Your task to perform on an android device: toggle location history Image 0: 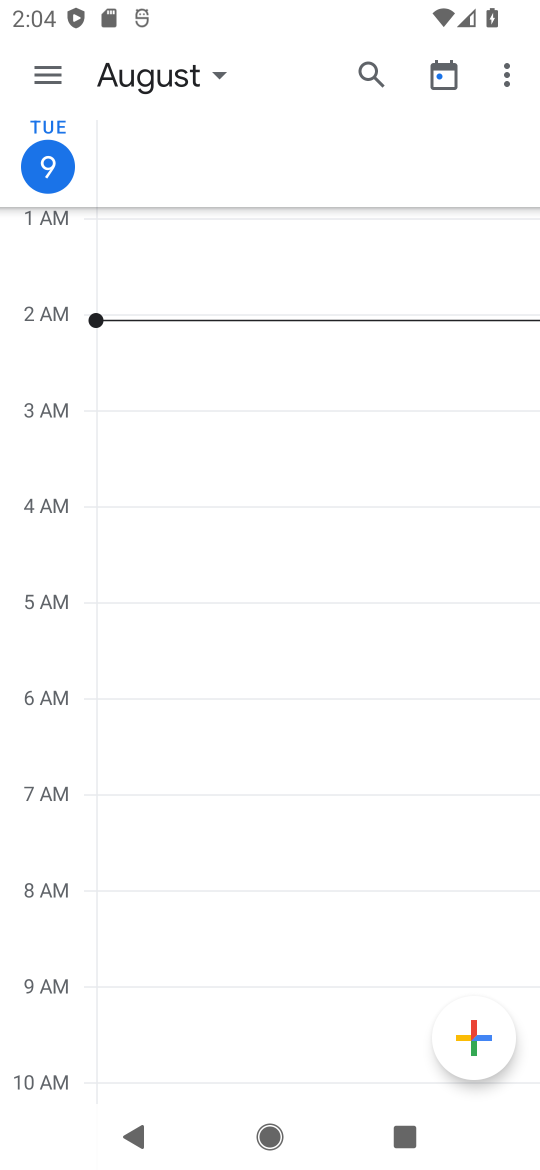
Step 0: press home button
Your task to perform on an android device: toggle location history Image 1: 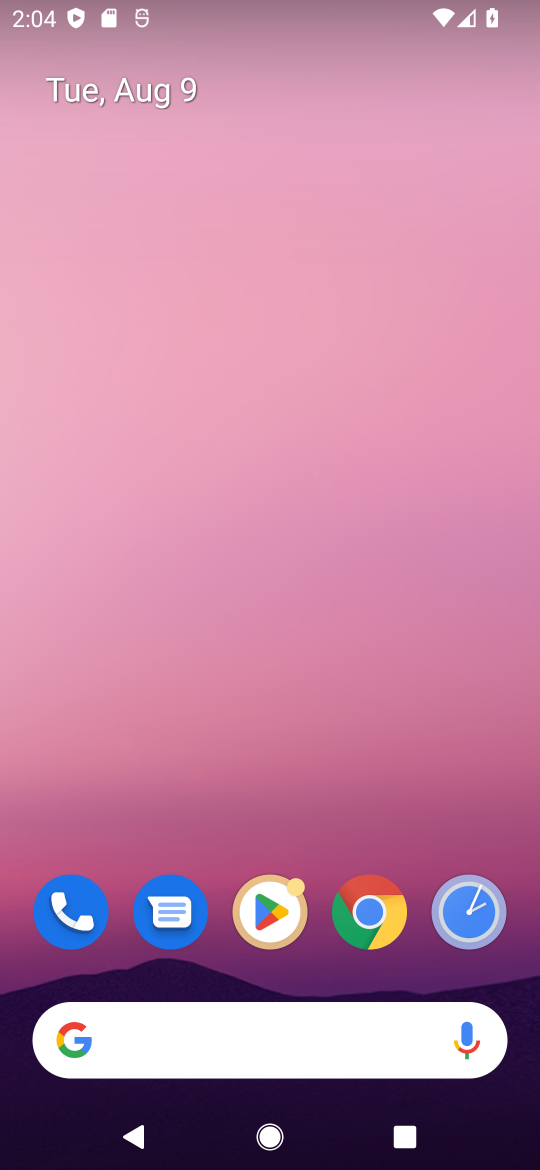
Step 1: drag from (294, 772) to (211, 100)
Your task to perform on an android device: toggle location history Image 2: 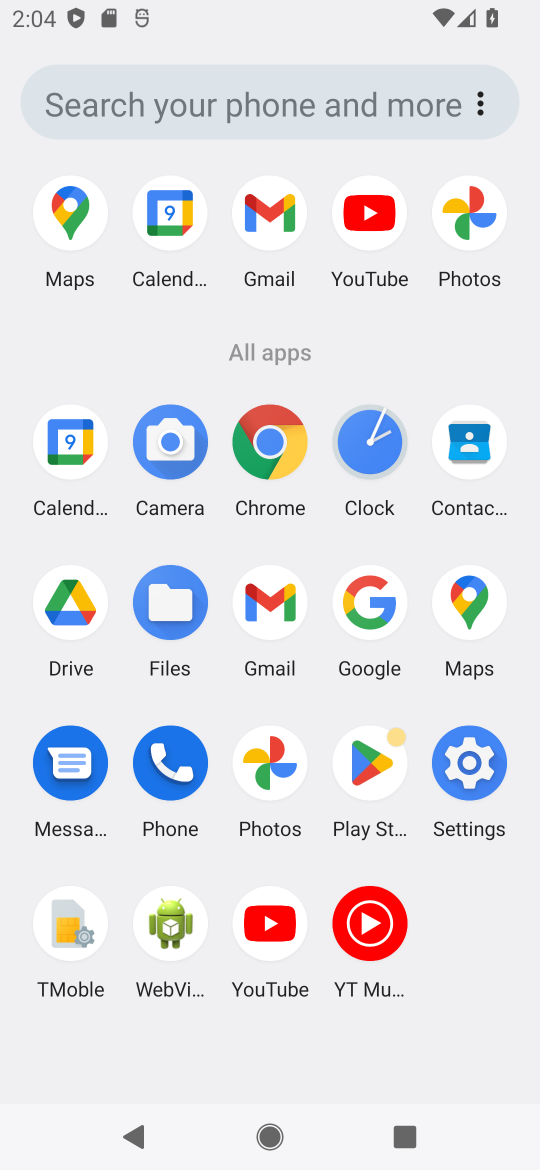
Step 2: click (470, 757)
Your task to perform on an android device: toggle location history Image 3: 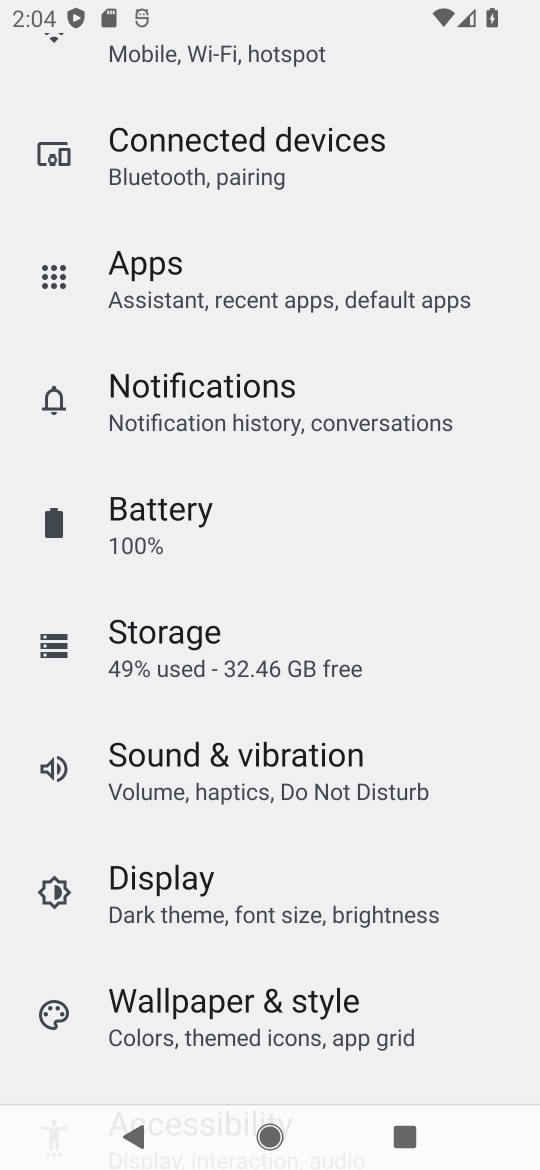
Step 3: drag from (312, 848) to (265, 78)
Your task to perform on an android device: toggle location history Image 4: 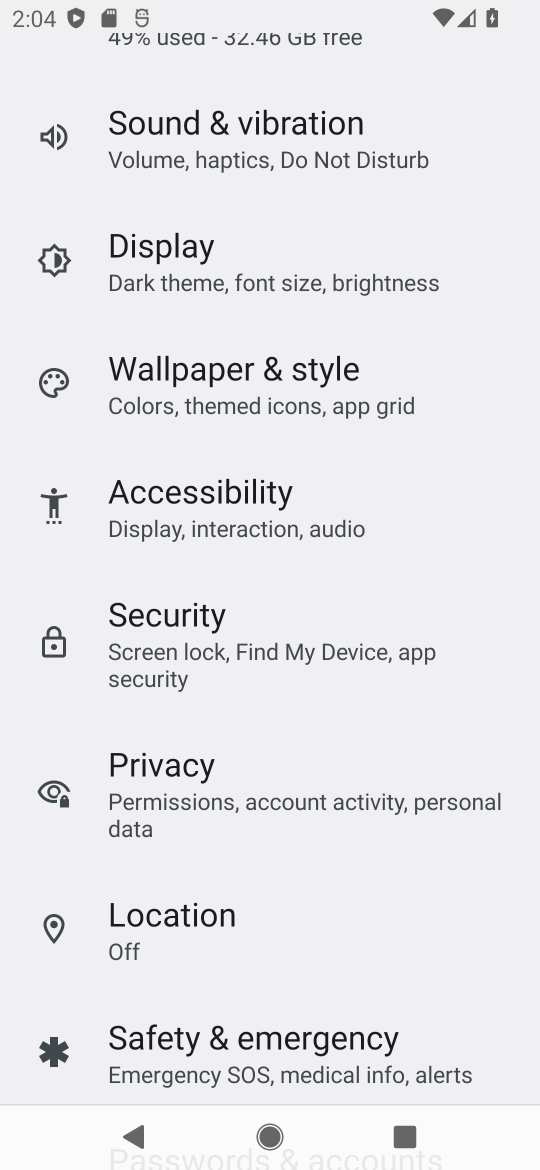
Step 4: click (182, 913)
Your task to perform on an android device: toggle location history Image 5: 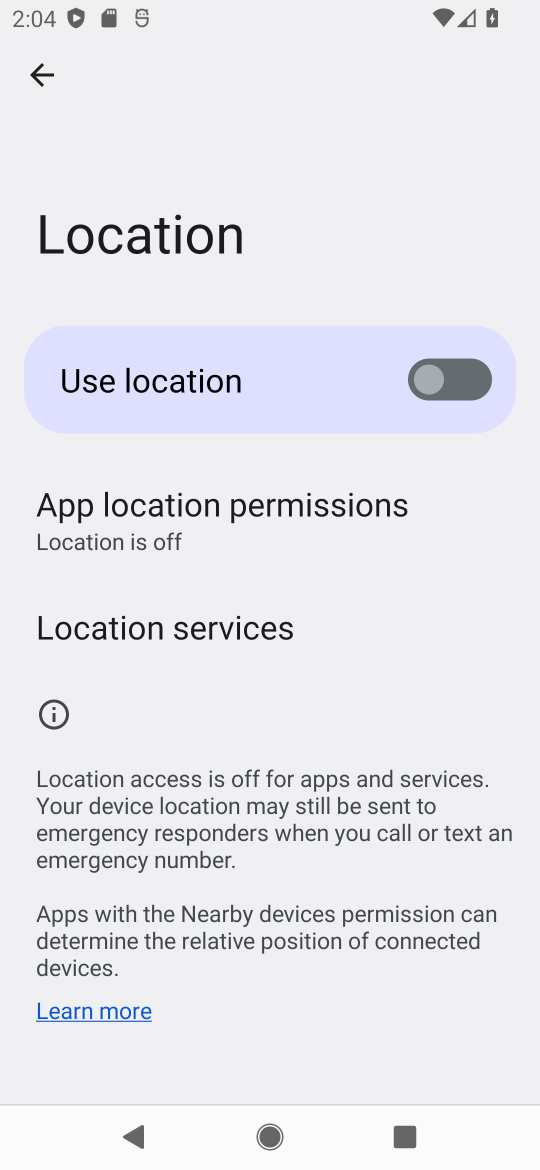
Step 5: click (131, 632)
Your task to perform on an android device: toggle location history Image 6: 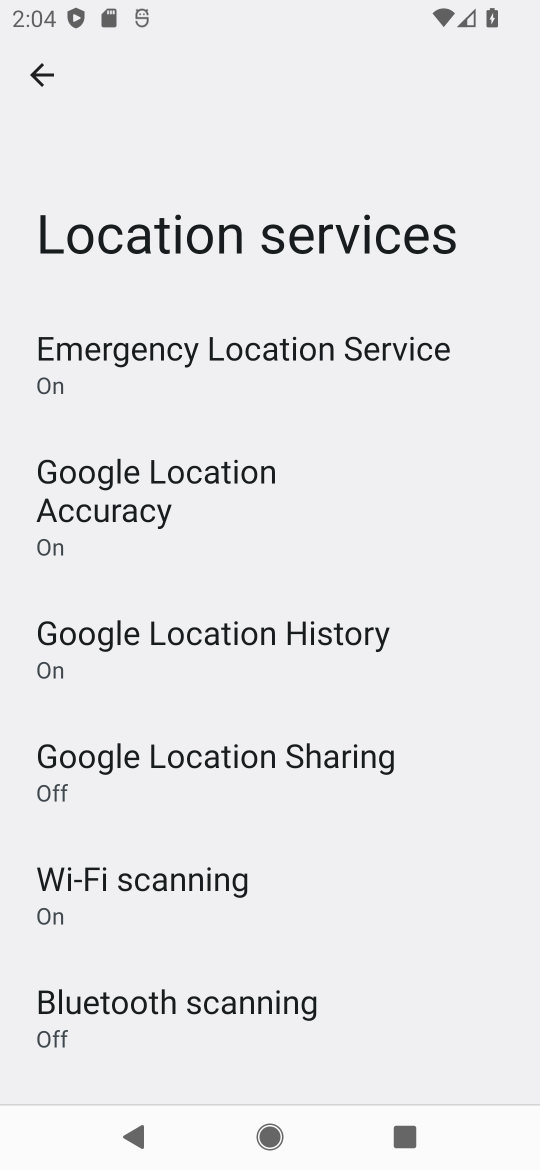
Step 6: click (195, 626)
Your task to perform on an android device: toggle location history Image 7: 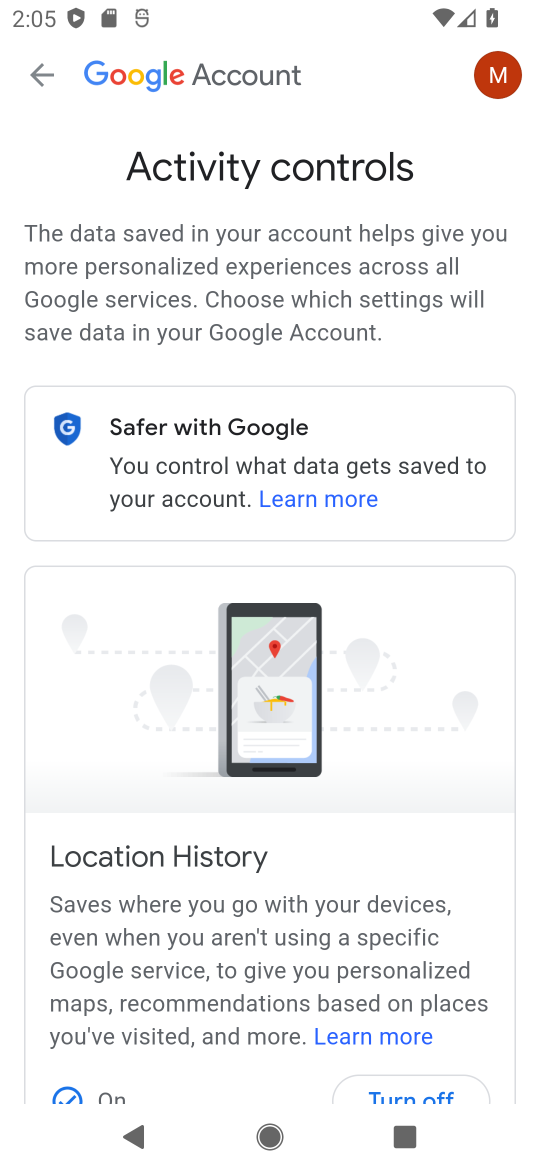
Step 7: drag from (398, 872) to (336, 473)
Your task to perform on an android device: toggle location history Image 8: 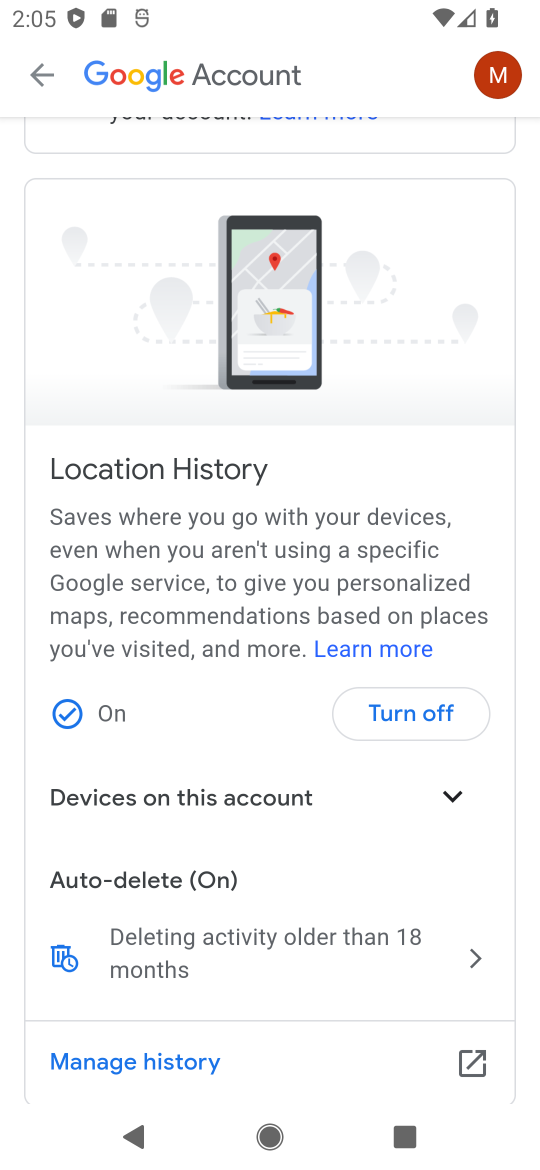
Step 8: click (425, 719)
Your task to perform on an android device: toggle location history Image 9: 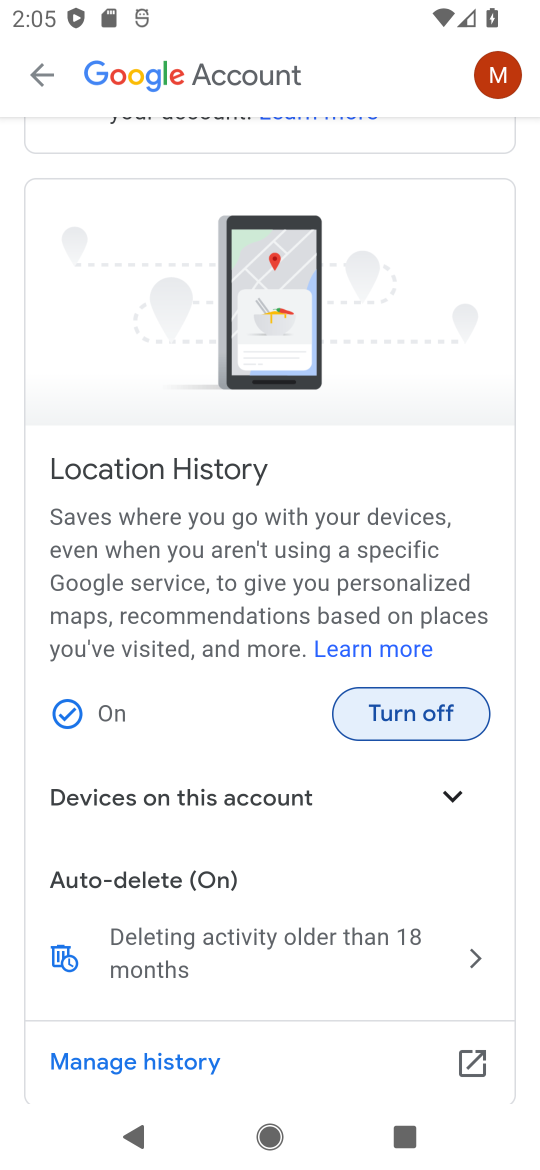
Step 9: click (398, 710)
Your task to perform on an android device: toggle location history Image 10: 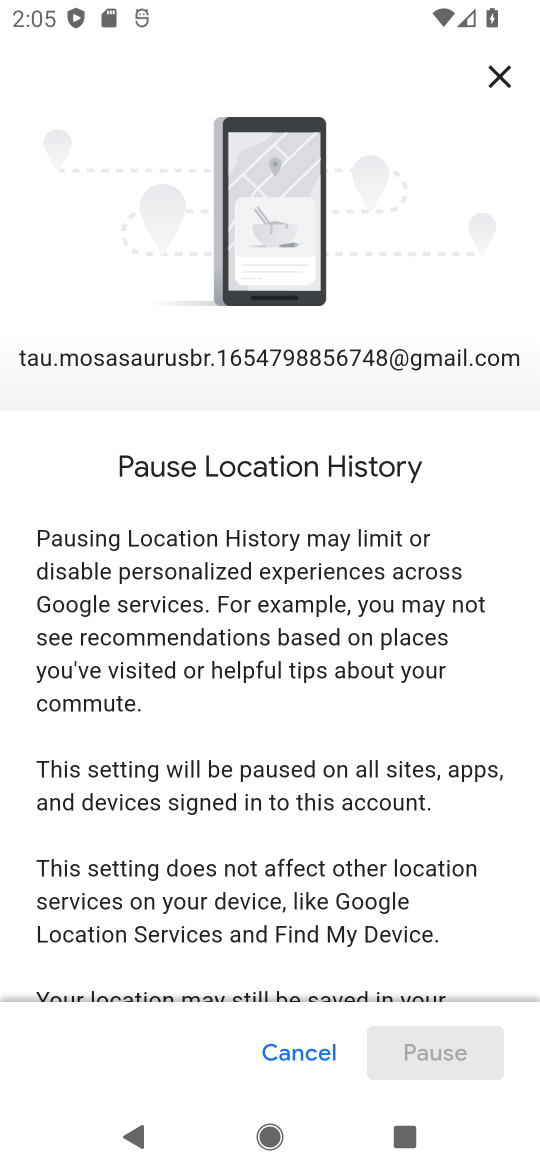
Step 10: drag from (299, 865) to (273, 371)
Your task to perform on an android device: toggle location history Image 11: 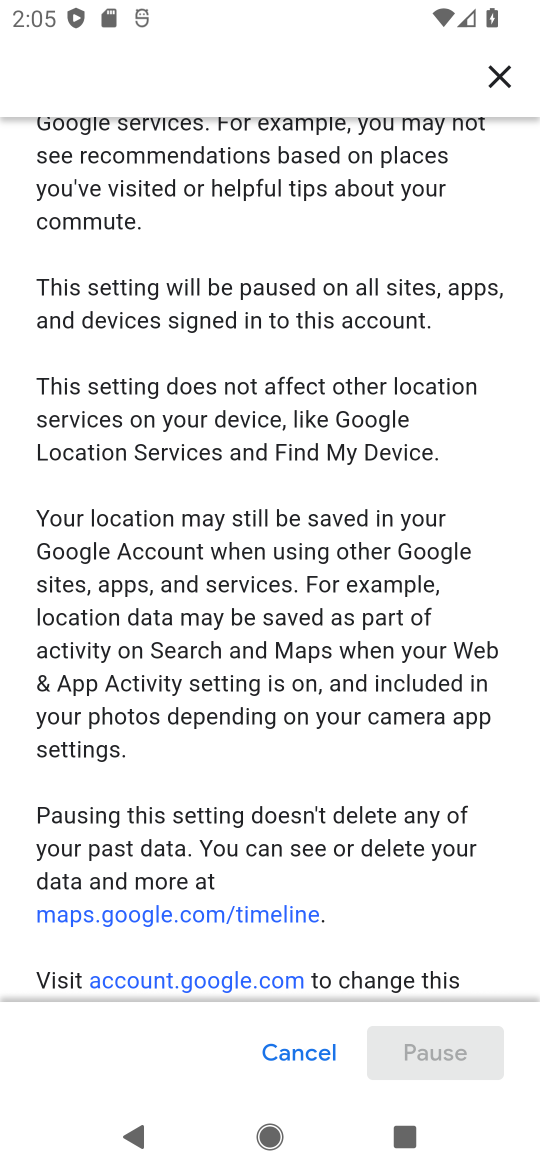
Step 11: drag from (360, 922) to (322, 395)
Your task to perform on an android device: toggle location history Image 12: 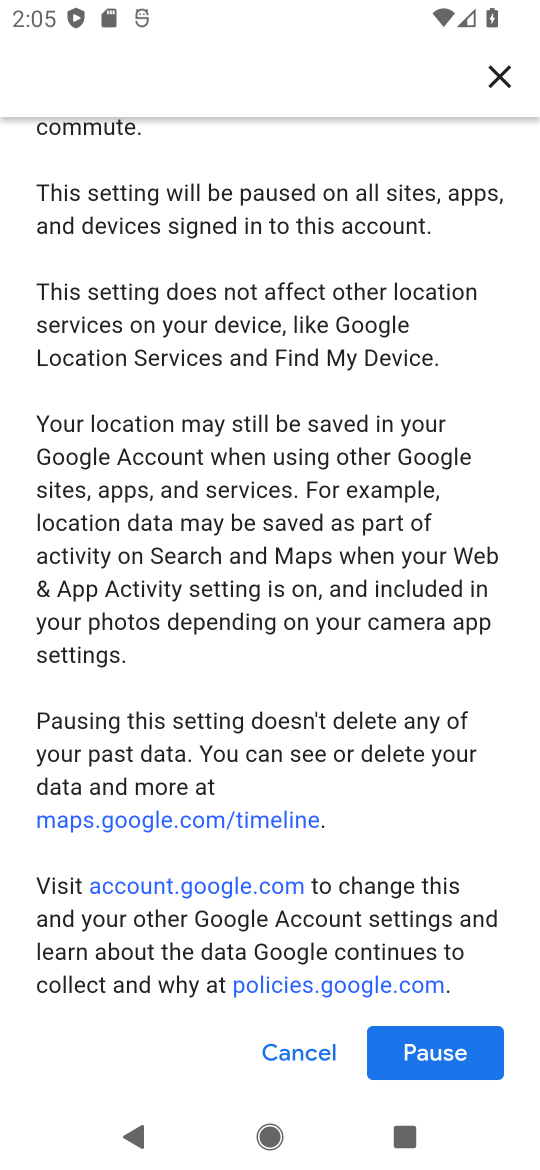
Step 12: click (432, 1046)
Your task to perform on an android device: toggle location history Image 13: 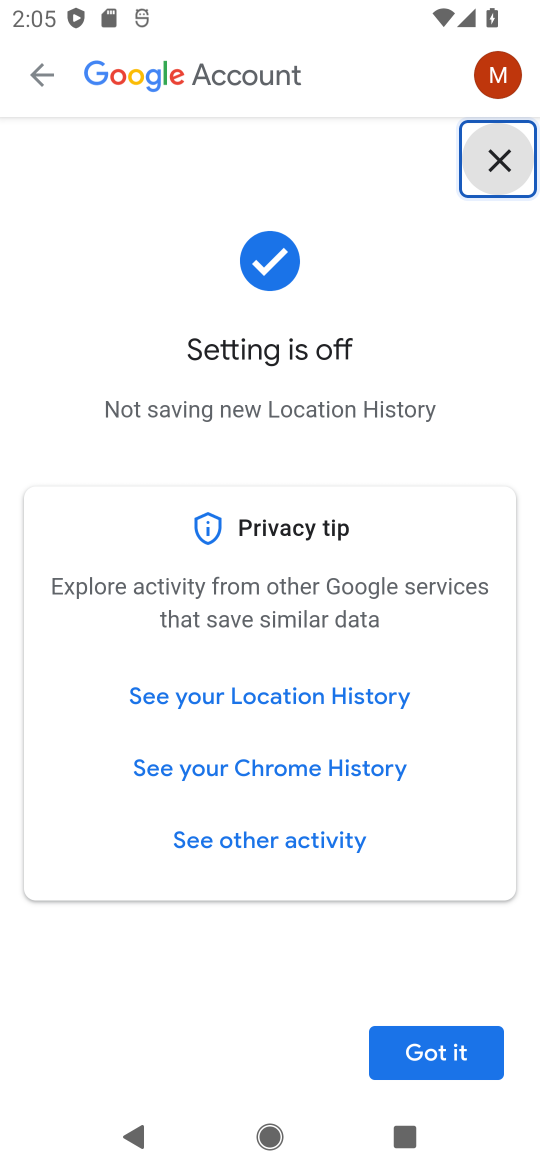
Step 13: click (458, 1045)
Your task to perform on an android device: toggle location history Image 14: 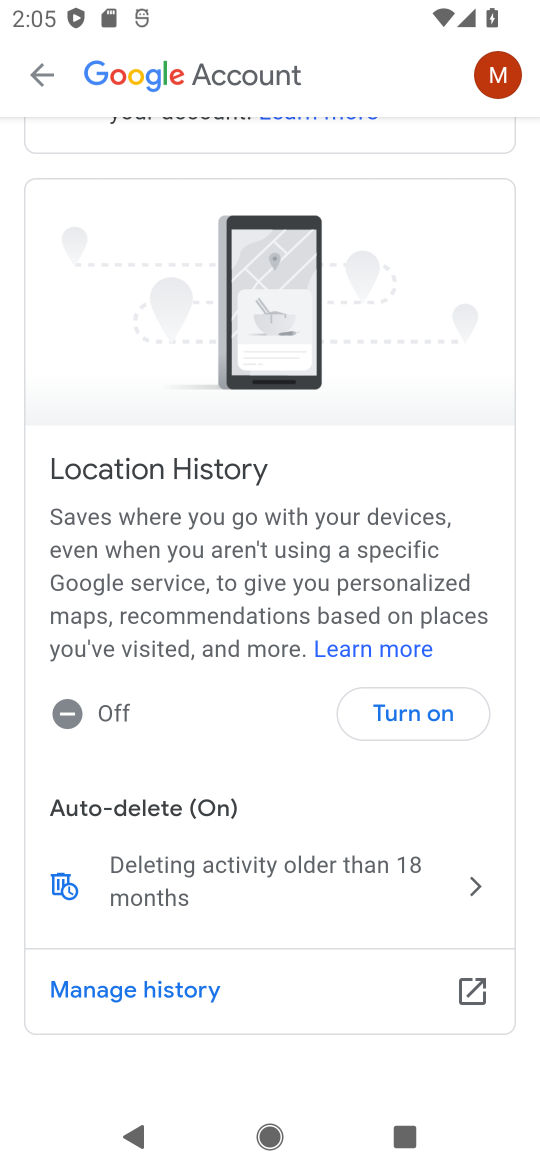
Step 14: task complete